Your task to perform on an android device: Search for flights from Mexico city to Zurich Image 0: 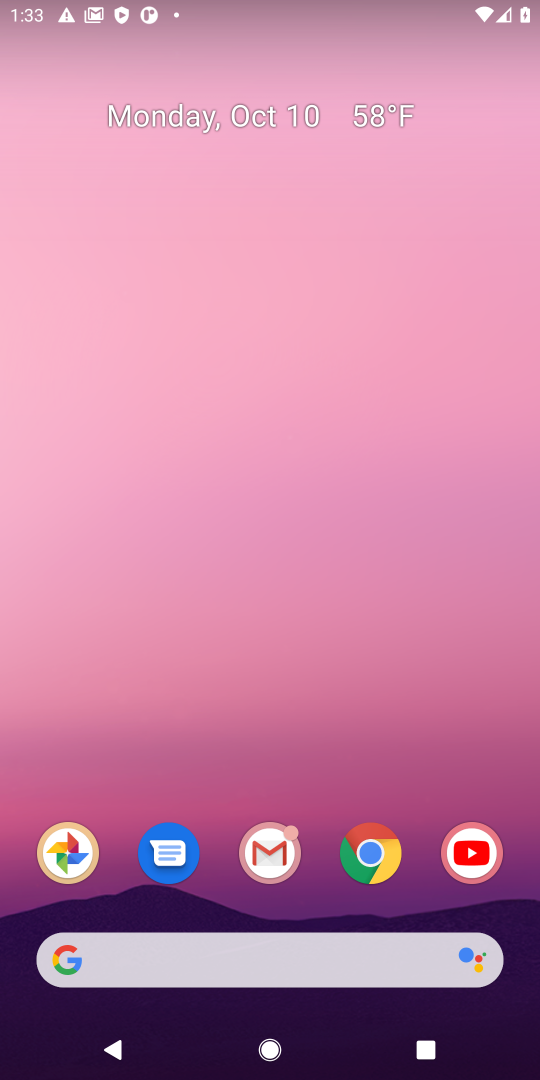
Step 0: drag from (362, 917) to (534, 972)
Your task to perform on an android device: Search for flights from Mexico city to Zurich Image 1: 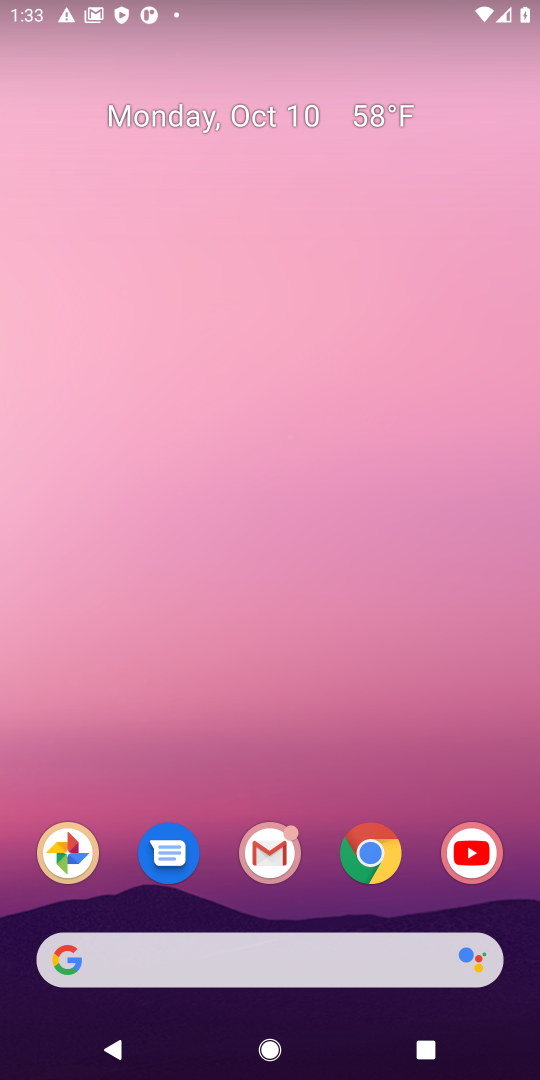
Step 1: click (370, 838)
Your task to perform on an android device: Search for flights from Mexico city to Zurich Image 2: 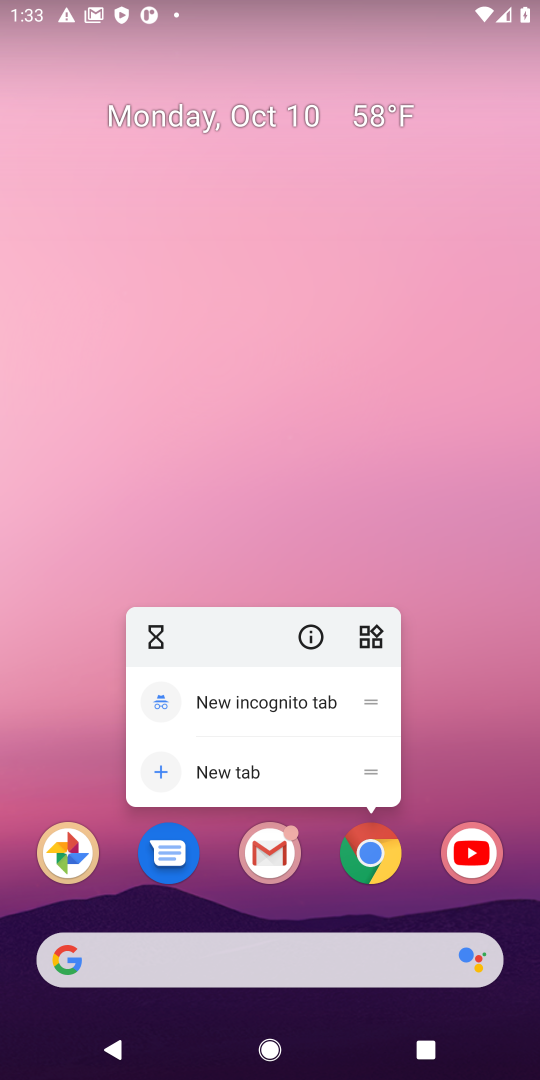
Step 2: click (367, 854)
Your task to perform on an android device: Search for flights from Mexico city to Zurich Image 3: 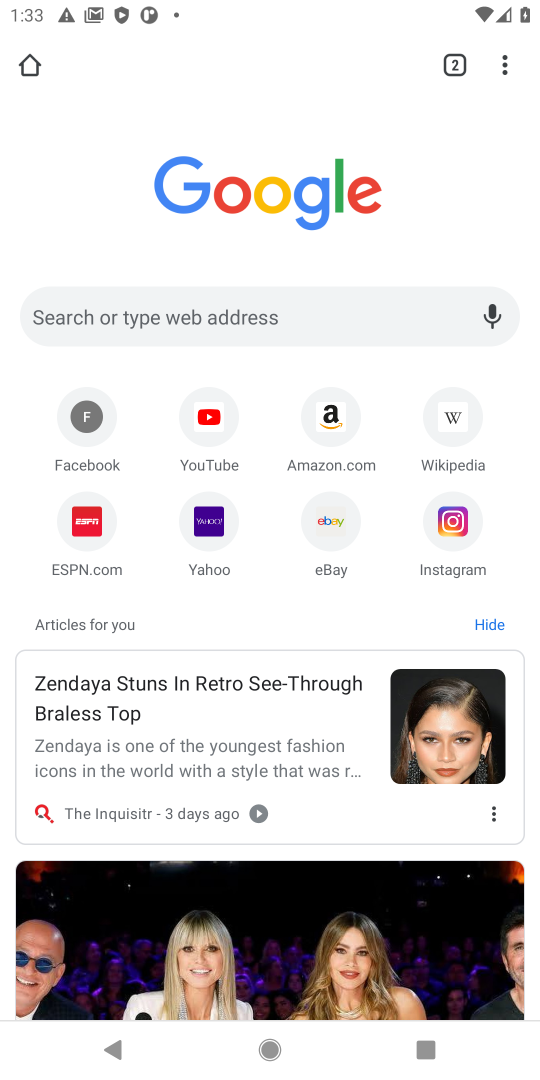
Step 3: click (131, 309)
Your task to perform on an android device: Search for flights from Mexico city to Zurich Image 4: 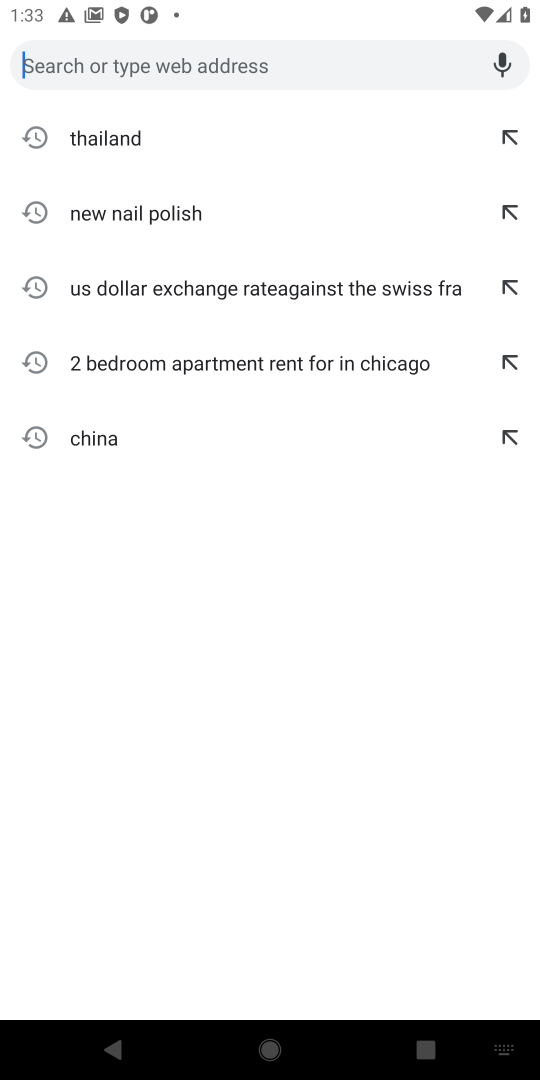
Step 4: type "flights from Mexico city to Zurich"
Your task to perform on an android device: Search for flights from Mexico city to Zurich Image 5: 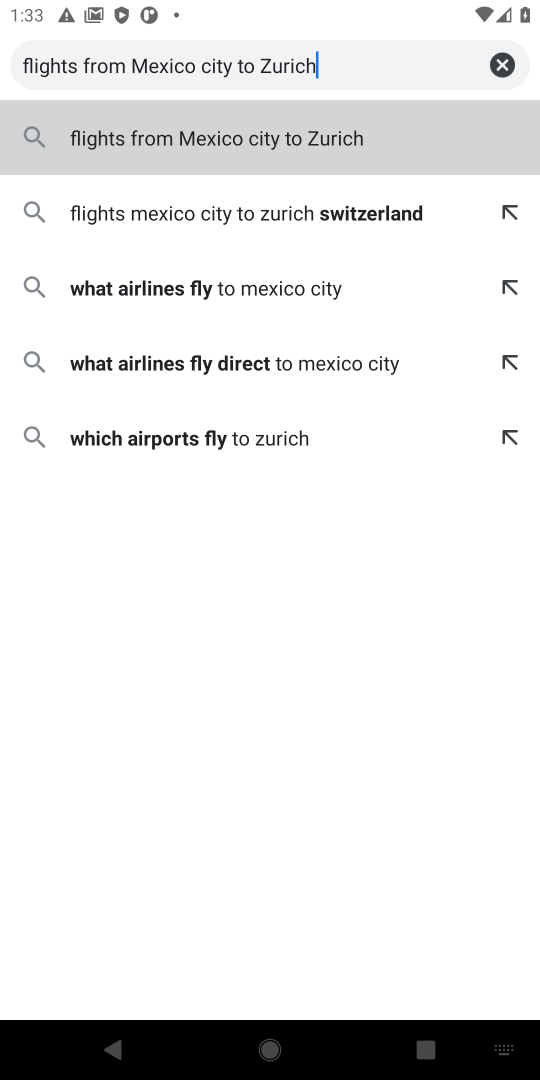
Step 5: click (315, 121)
Your task to perform on an android device: Search for flights from Mexico city to Zurich Image 6: 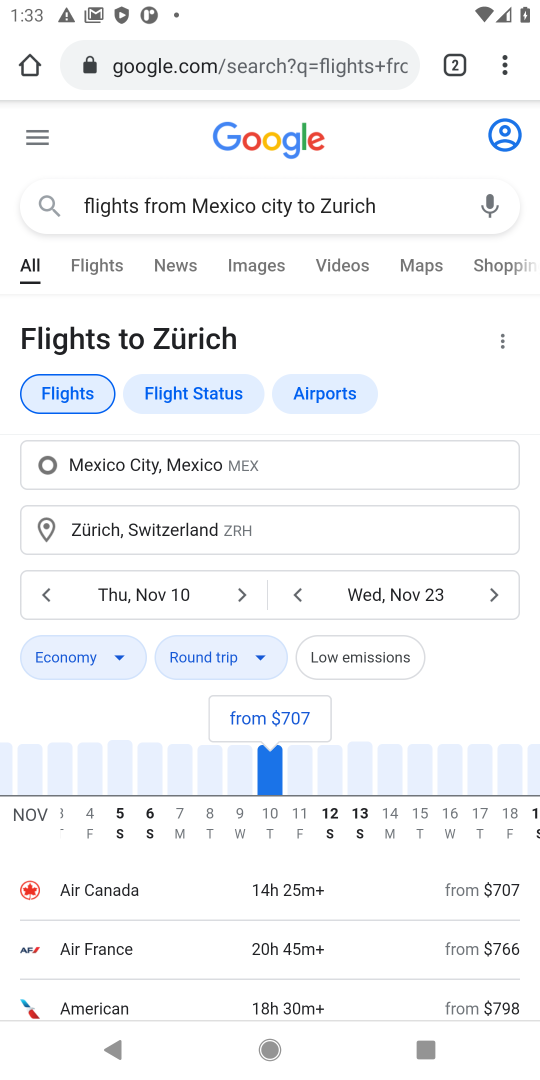
Step 6: drag from (458, 699) to (378, 331)
Your task to perform on an android device: Search for flights from Mexico city to Zurich Image 7: 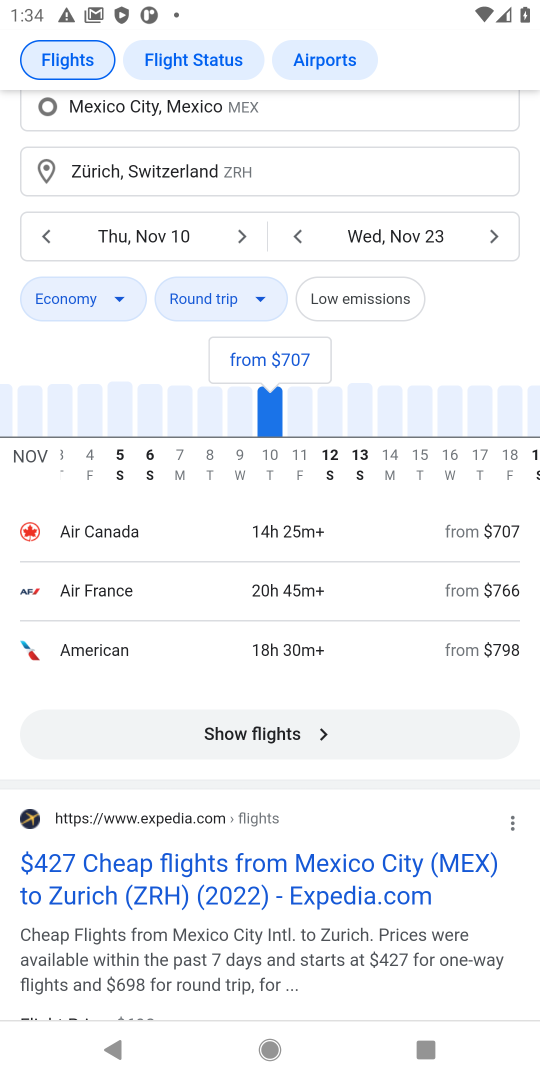
Step 7: click (279, 737)
Your task to perform on an android device: Search for flights from Mexico city to Zurich Image 8: 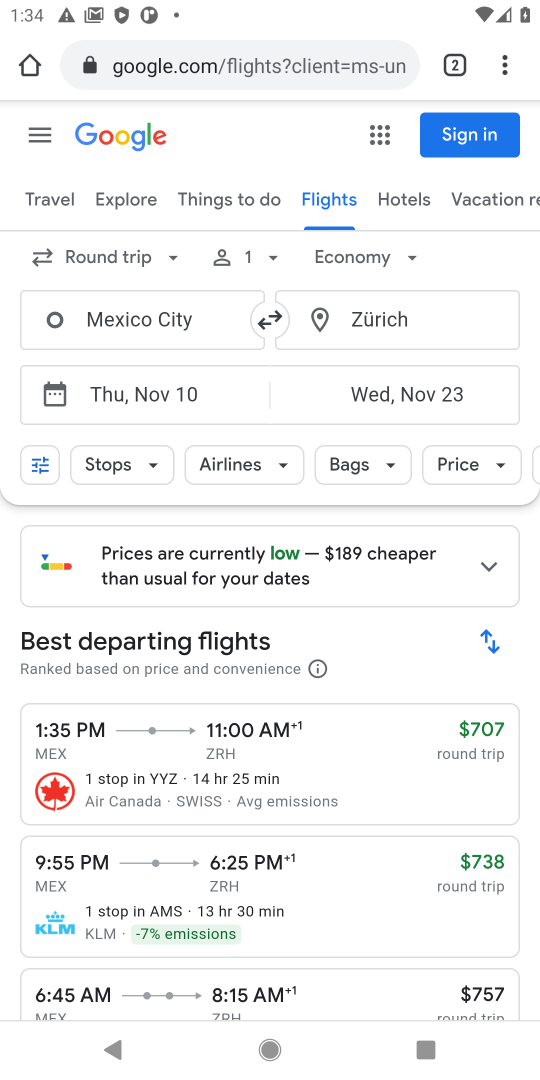
Step 8: drag from (374, 639) to (295, 191)
Your task to perform on an android device: Search for flights from Mexico city to Zurich Image 9: 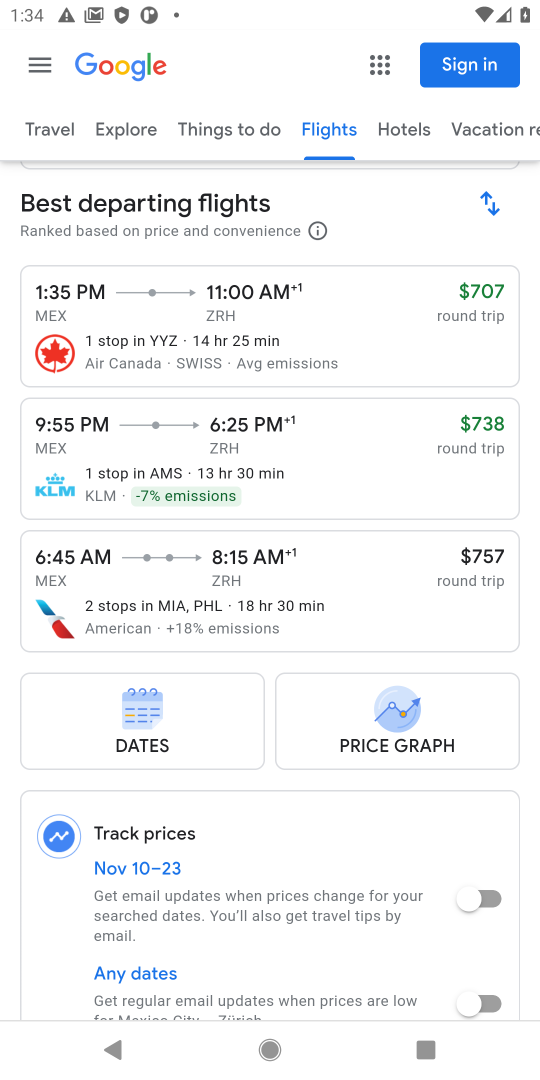
Step 9: click (395, 493)
Your task to perform on an android device: Search for flights from Mexico city to Zurich Image 10: 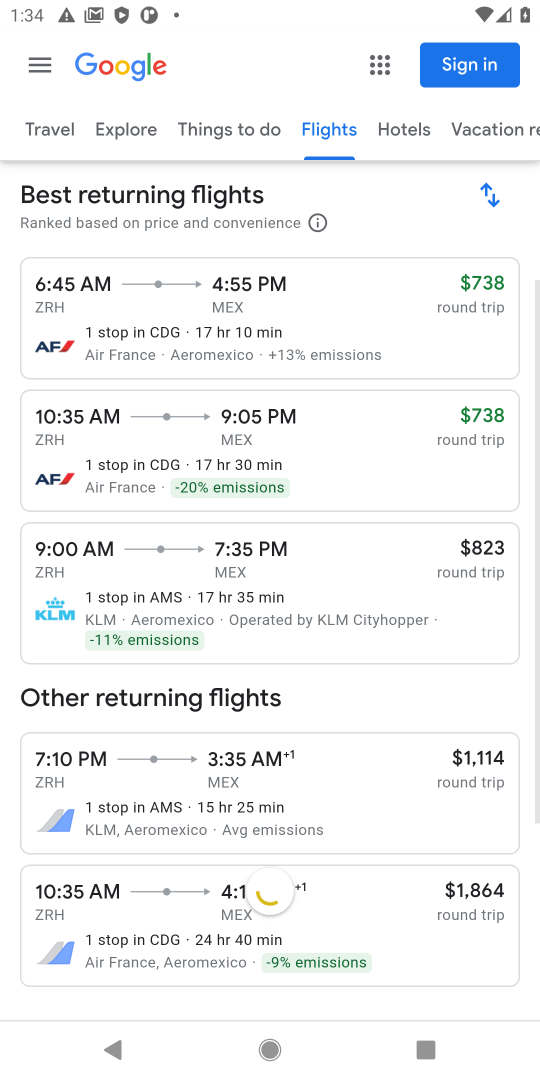
Step 10: task complete